Your task to perform on an android device: check out phone information Image 0: 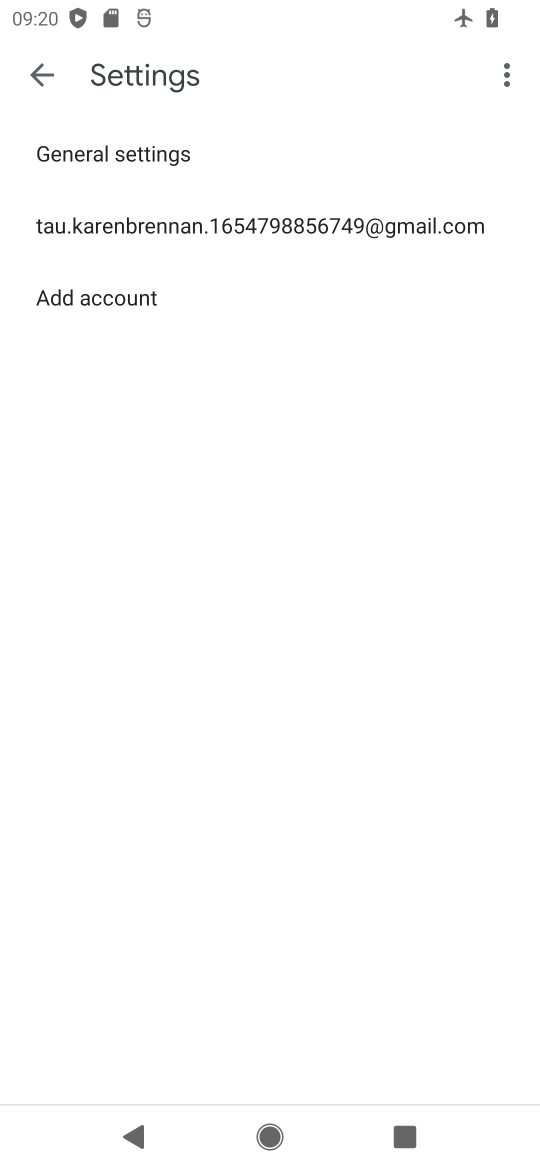
Step 0: press home button
Your task to perform on an android device: check out phone information Image 1: 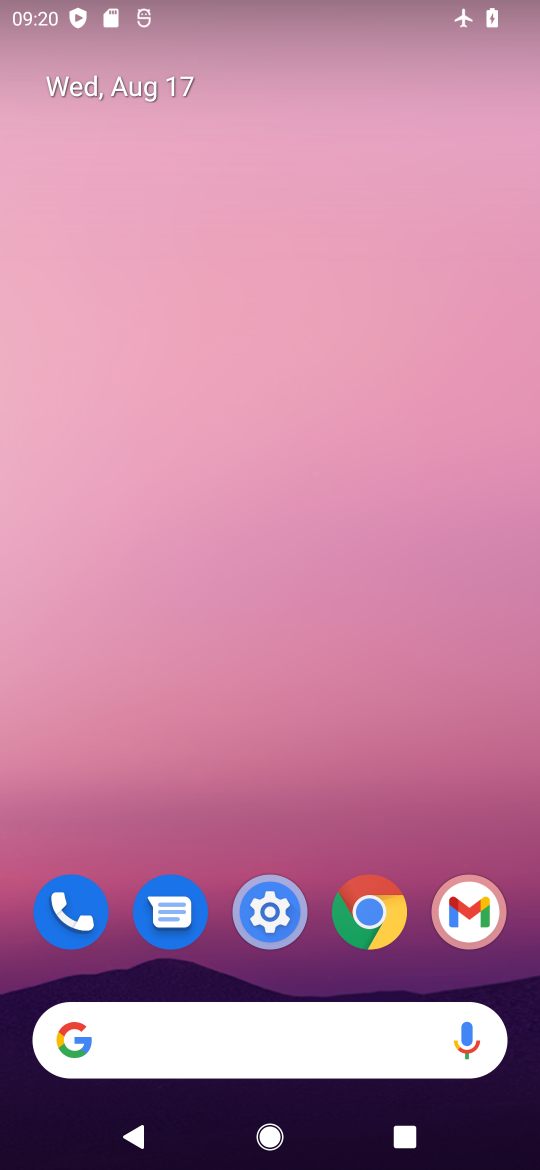
Step 1: click (62, 912)
Your task to perform on an android device: check out phone information Image 2: 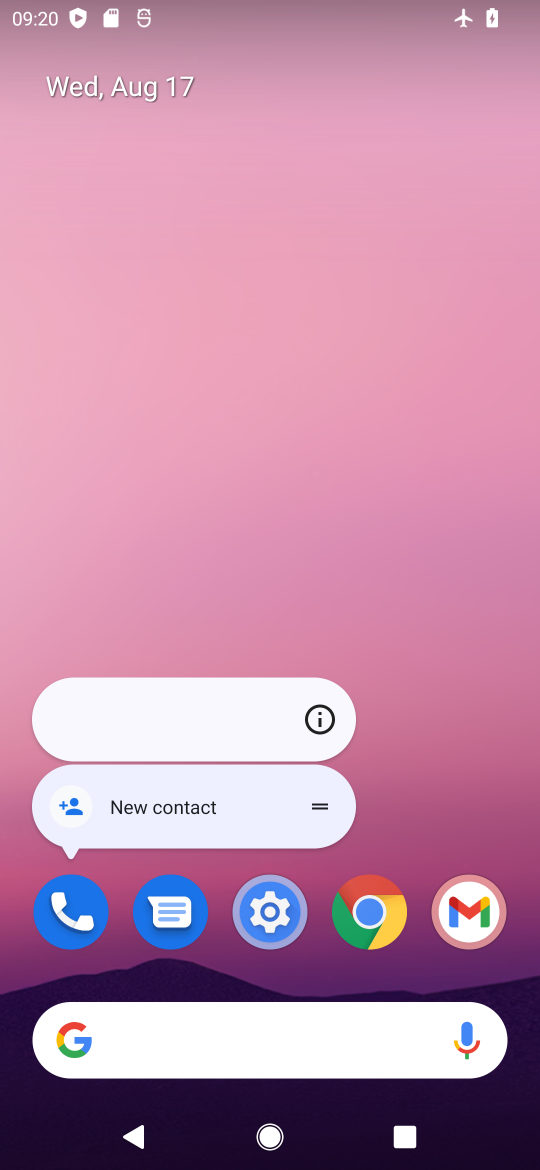
Step 2: click (327, 722)
Your task to perform on an android device: check out phone information Image 3: 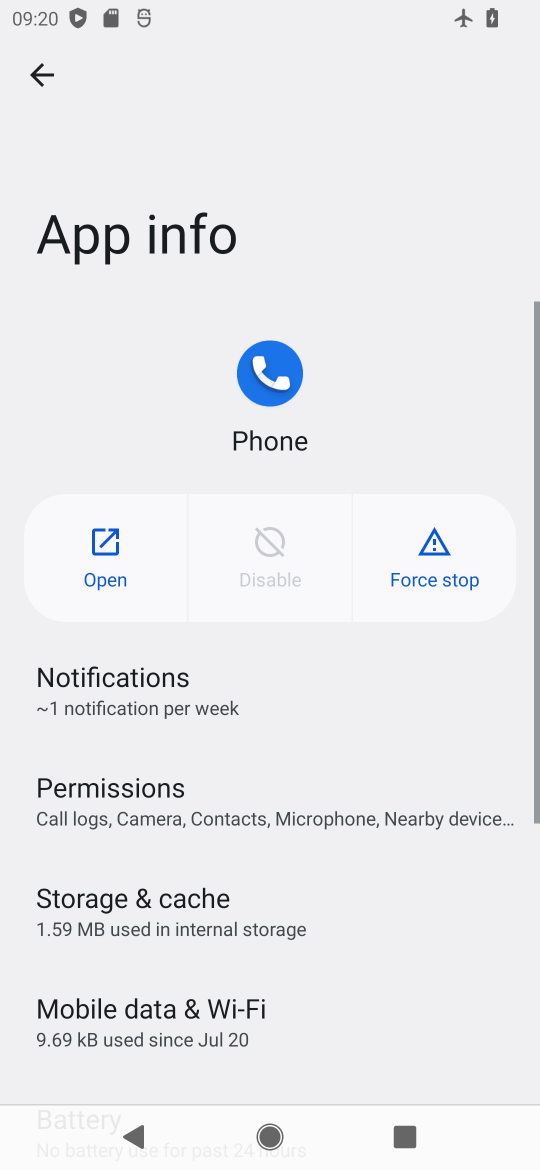
Step 3: task complete